Your task to perform on an android device: toggle javascript in the chrome app Image 0: 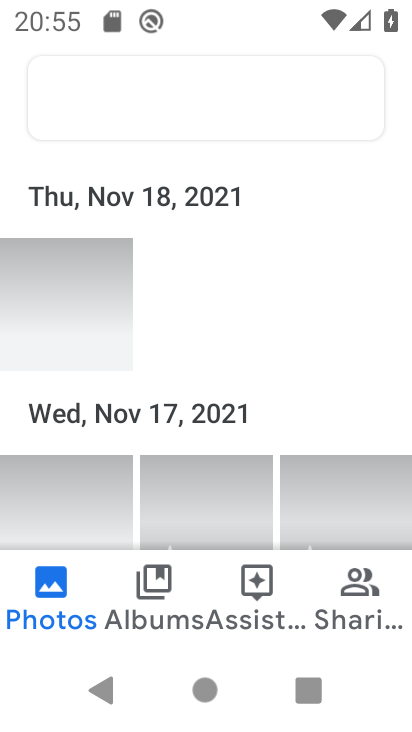
Step 0: drag from (202, 518) to (388, 278)
Your task to perform on an android device: toggle javascript in the chrome app Image 1: 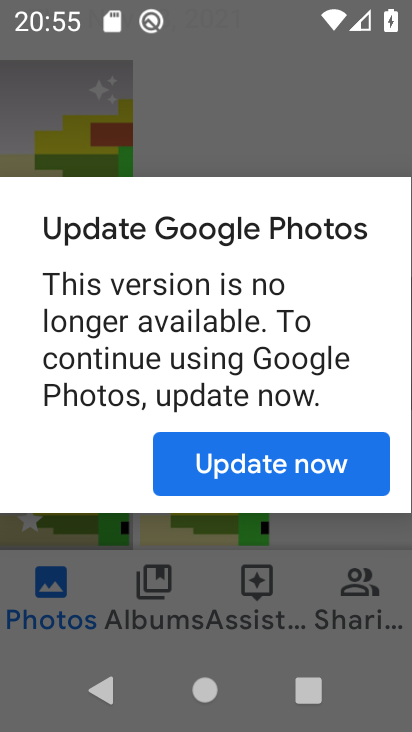
Step 1: press home button
Your task to perform on an android device: toggle javascript in the chrome app Image 2: 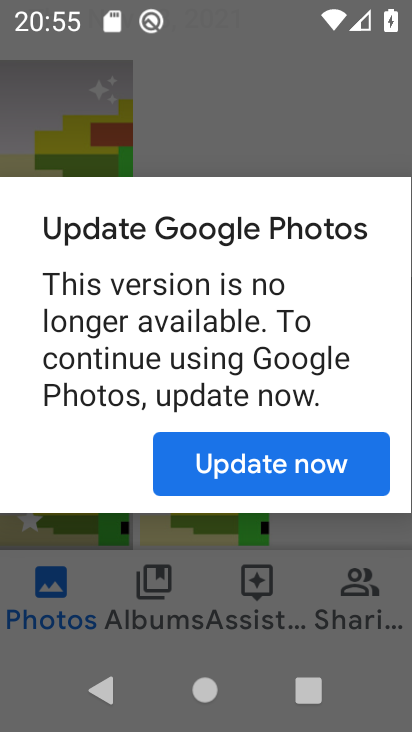
Step 2: drag from (388, 278) to (394, 391)
Your task to perform on an android device: toggle javascript in the chrome app Image 3: 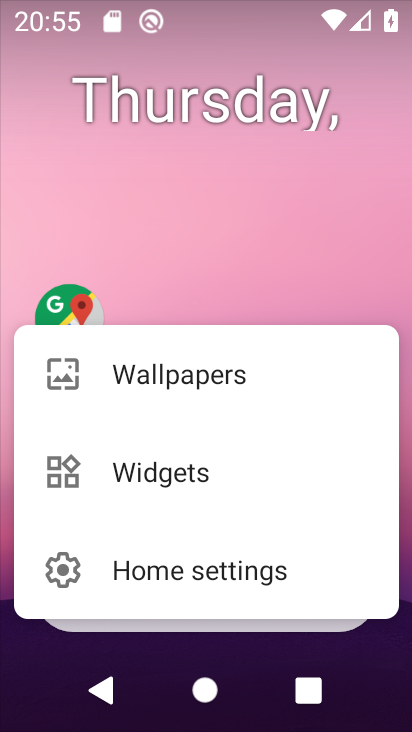
Step 3: click (268, 269)
Your task to perform on an android device: toggle javascript in the chrome app Image 4: 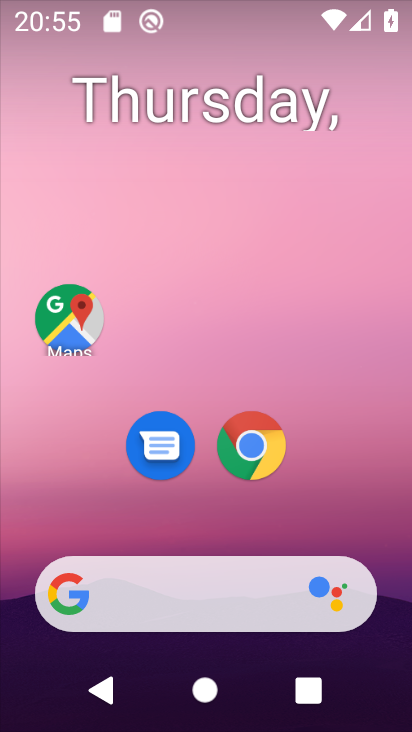
Step 4: click (240, 457)
Your task to perform on an android device: toggle javascript in the chrome app Image 5: 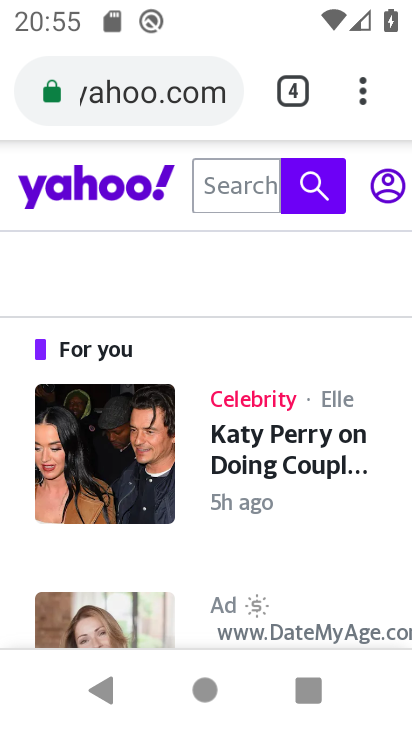
Step 5: drag from (360, 95) to (128, 475)
Your task to perform on an android device: toggle javascript in the chrome app Image 6: 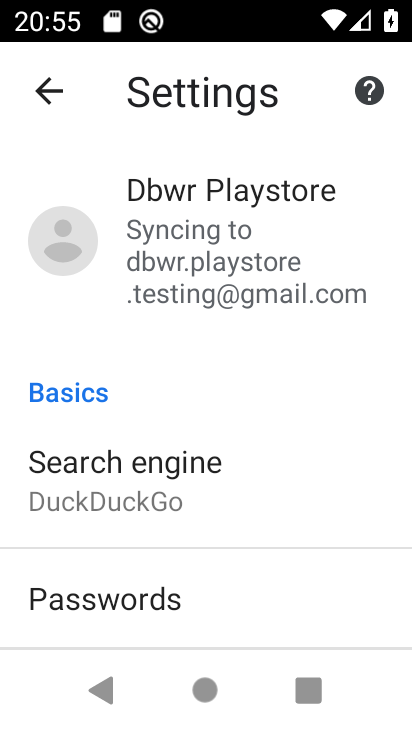
Step 6: drag from (206, 621) to (255, 231)
Your task to perform on an android device: toggle javascript in the chrome app Image 7: 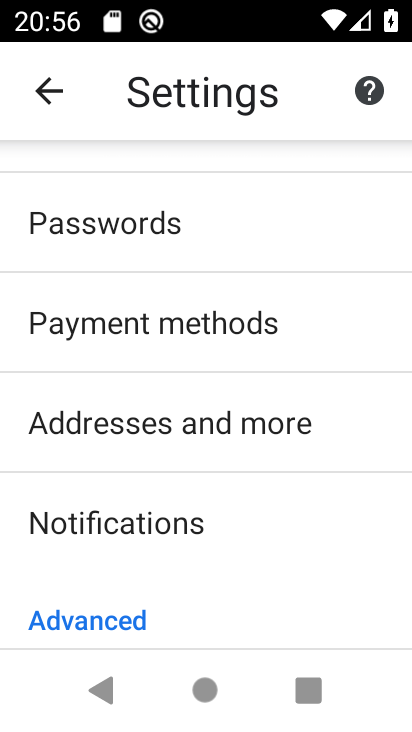
Step 7: drag from (178, 595) to (158, 300)
Your task to perform on an android device: toggle javascript in the chrome app Image 8: 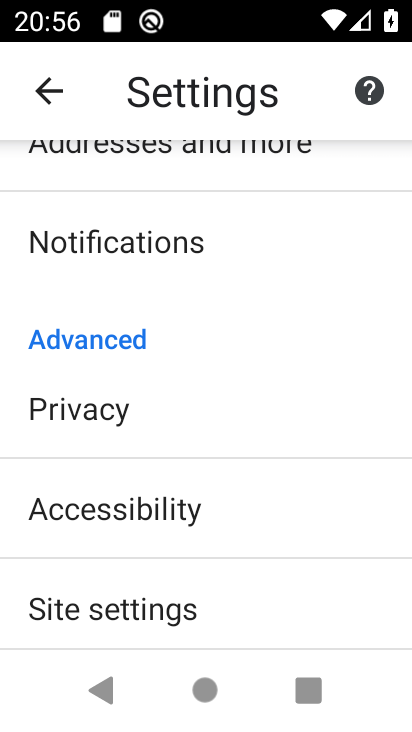
Step 8: click (108, 607)
Your task to perform on an android device: toggle javascript in the chrome app Image 9: 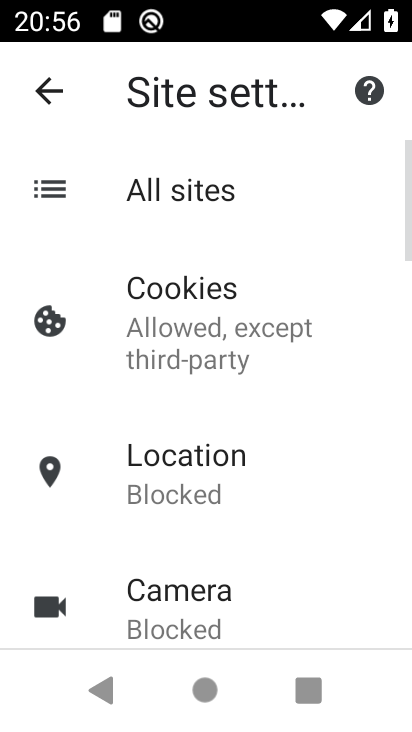
Step 9: drag from (125, 619) to (95, 301)
Your task to perform on an android device: toggle javascript in the chrome app Image 10: 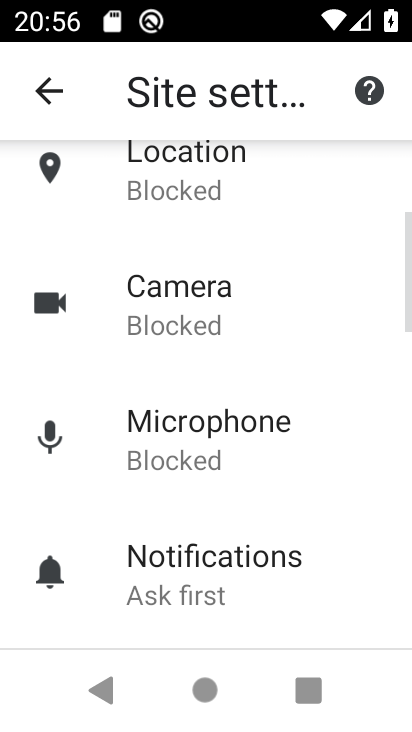
Step 10: drag from (132, 605) to (148, 265)
Your task to perform on an android device: toggle javascript in the chrome app Image 11: 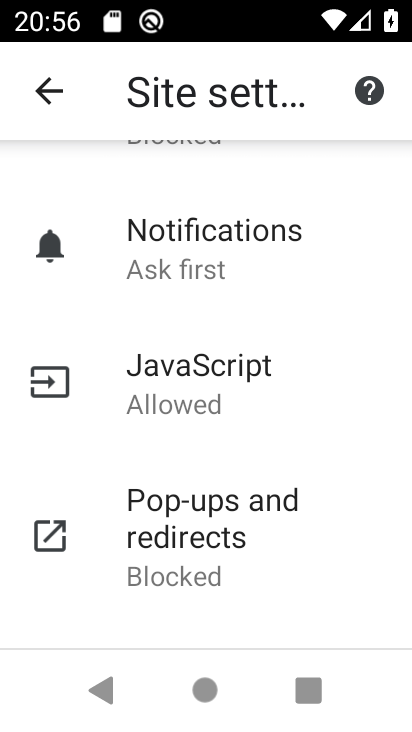
Step 11: click (173, 397)
Your task to perform on an android device: toggle javascript in the chrome app Image 12: 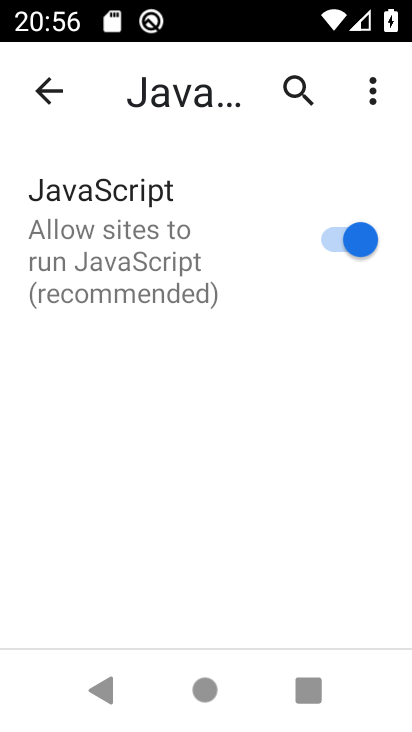
Step 12: click (347, 236)
Your task to perform on an android device: toggle javascript in the chrome app Image 13: 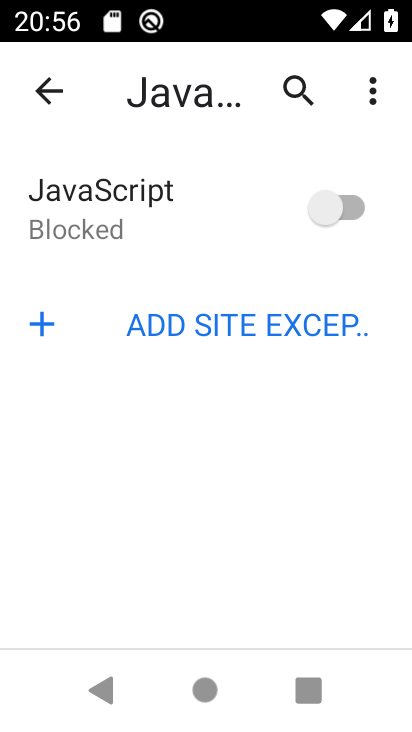
Step 13: task complete